Your task to perform on an android device: Is it going to rain today? Image 0: 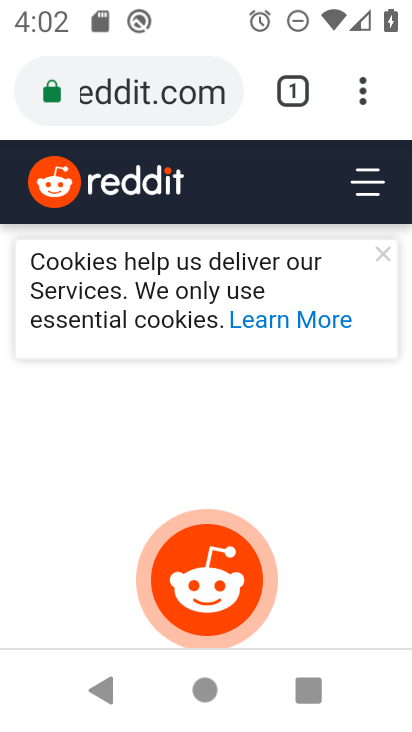
Step 0: press home button
Your task to perform on an android device: Is it going to rain today? Image 1: 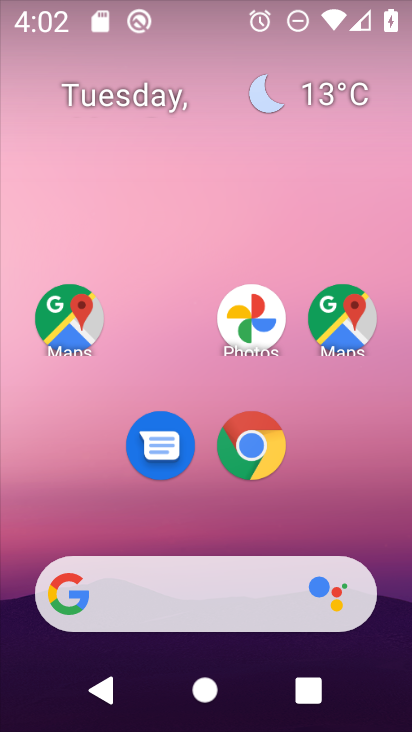
Step 1: click (239, 595)
Your task to perform on an android device: Is it going to rain today? Image 2: 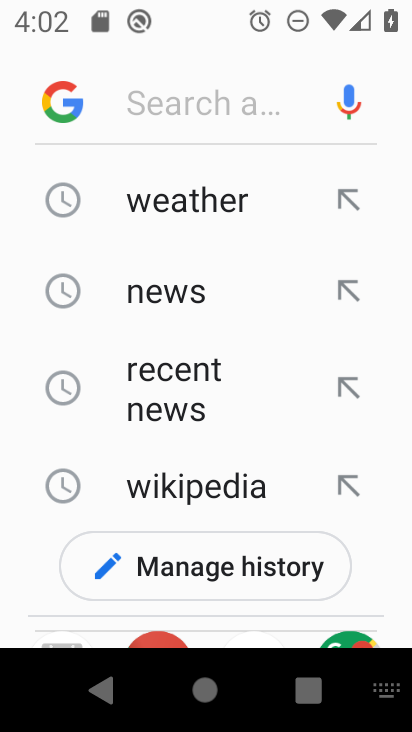
Step 2: click (239, 210)
Your task to perform on an android device: Is it going to rain today? Image 3: 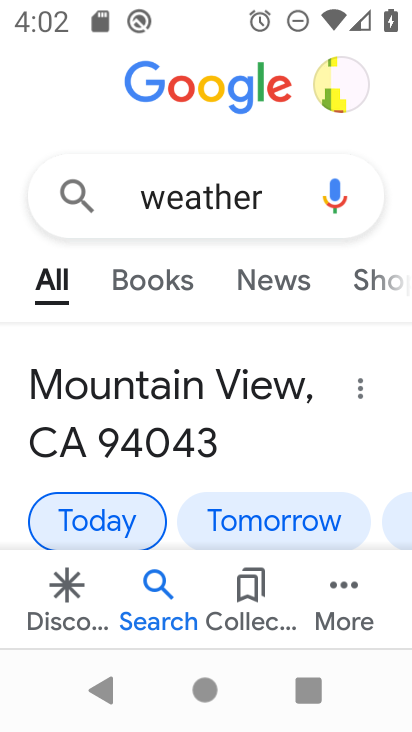
Step 3: drag from (208, 459) to (219, 316)
Your task to perform on an android device: Is it going to rain today? Image 4: 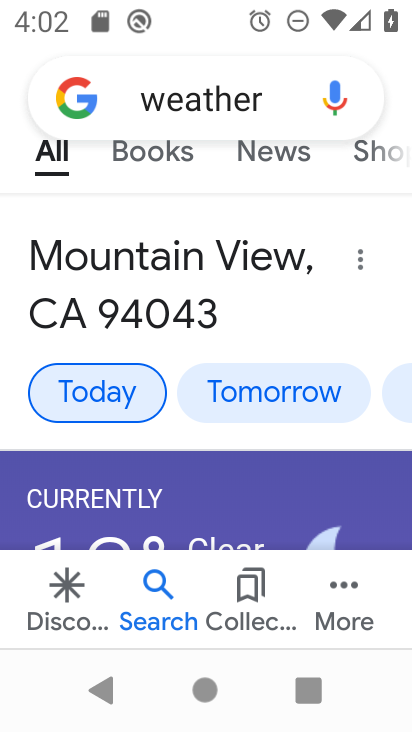
Step 4: click (119, 405)
Your task to perform on an android device: Is it going to rain today? Image 5: 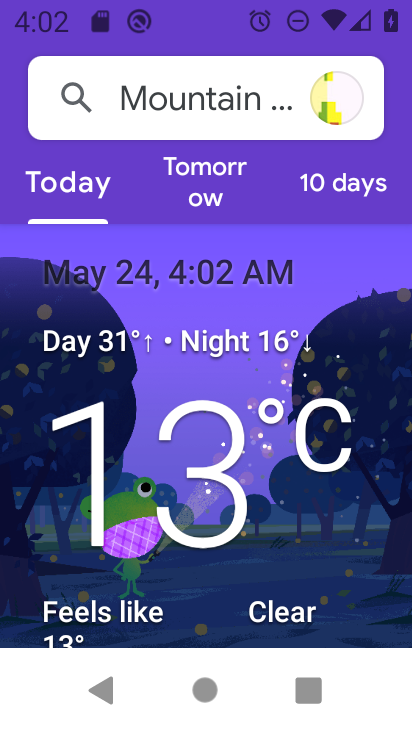
Step 5: task complete